Your task to perform on an android device: clear history in the chrome app Image 0: 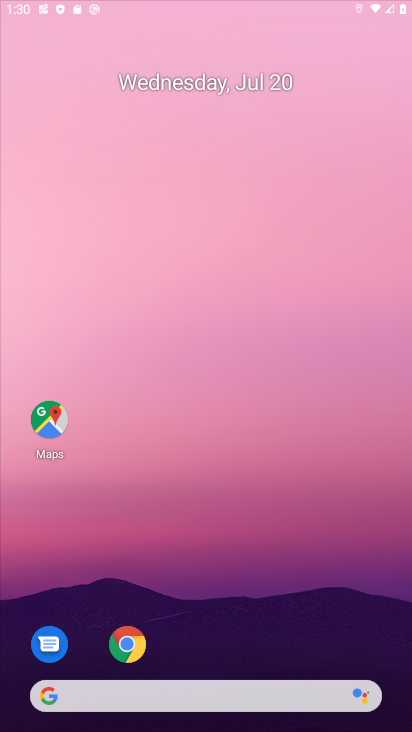
Step 0: press home button
Your task to perform on an android device: clear history in the chrome app Image 1: 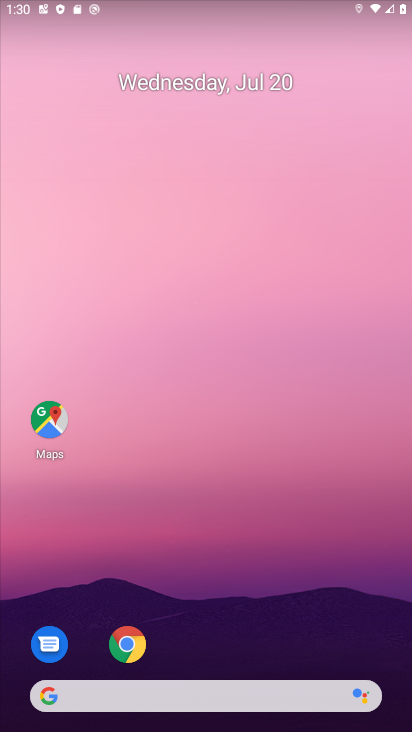
Step 1: drag from (248, 610) to (242, 30)
Your task to perform on an android device: clear history in the chrome app Image 2: 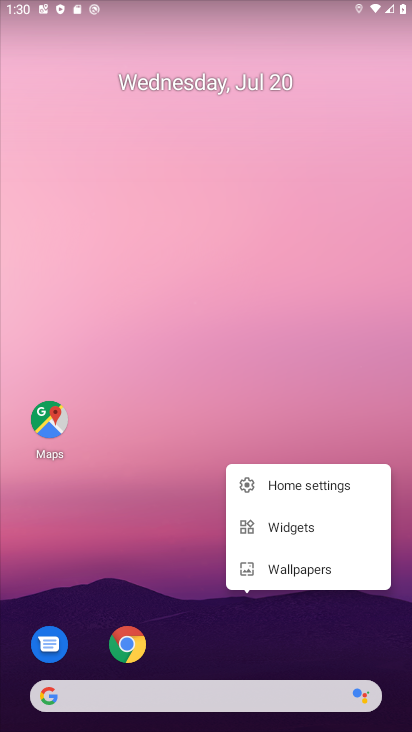
Step 2: drag from (208, 630) to (252, 95)
Your task to perform on an android device: clear history in the chrome app Image 3: 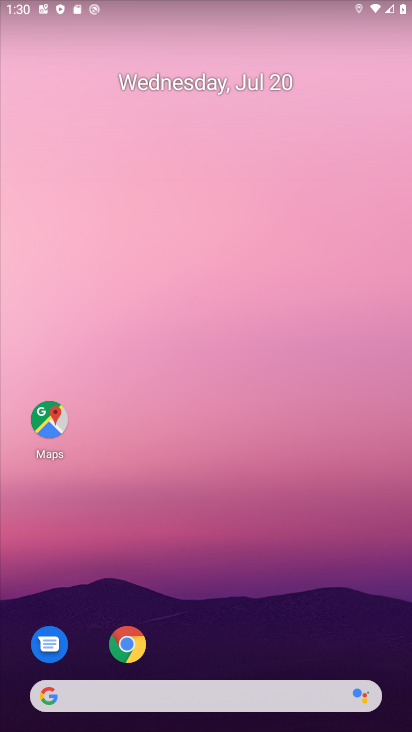
Step 3: drag from (231, 657) to (197, 119)
Your task to perform on an android device: clear history in the chrome app Image 4: 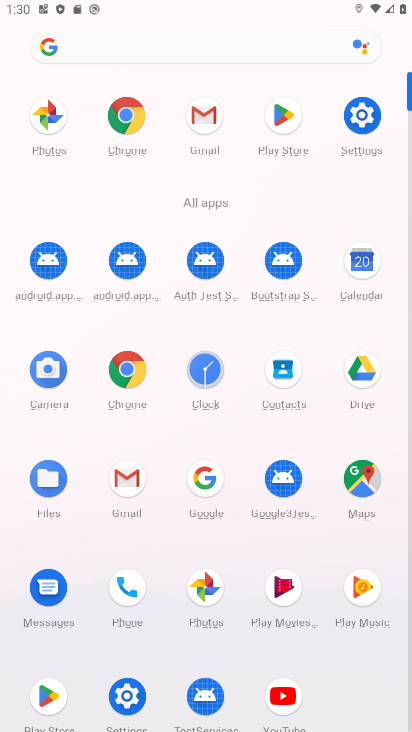
Step 4: click (123, 126)
Your task to perform on an android device: clear history in the chrome app Image 5: 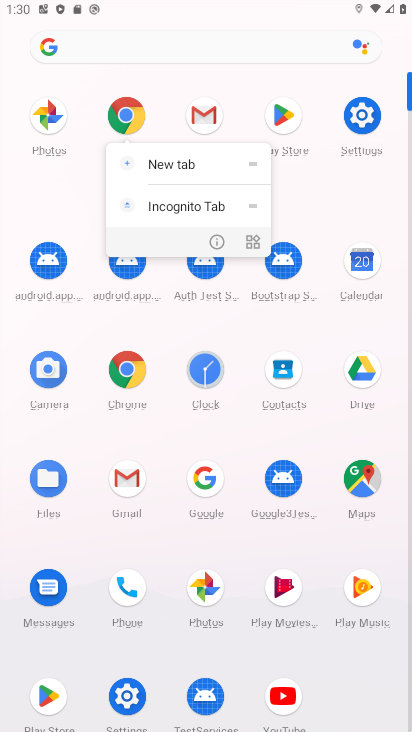
Step 5: click (123, 126)
Your task to perform on an android device: clear history in the chrome app Image 6: 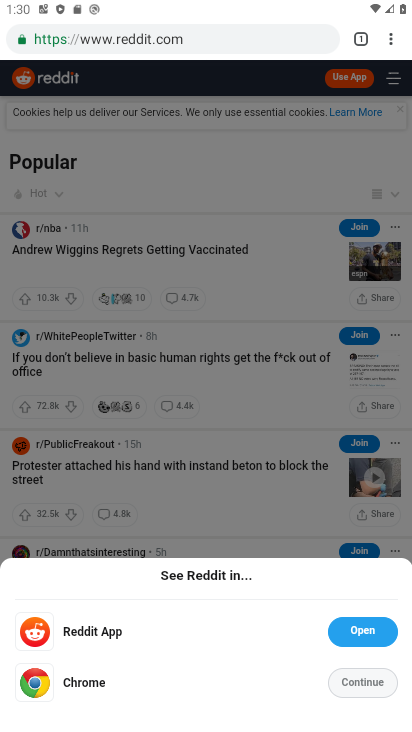
Step 6: drag from (385, 38) to (245, 282)
Your task to perform on an android device: clear history in the chrome app Image 7: 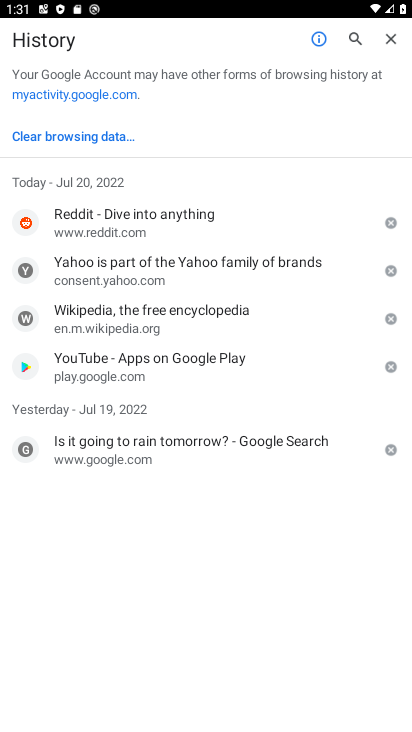
Step 7: click (86, 139)
Your task to perform on an android device: clear history in the chrome app Image 8: 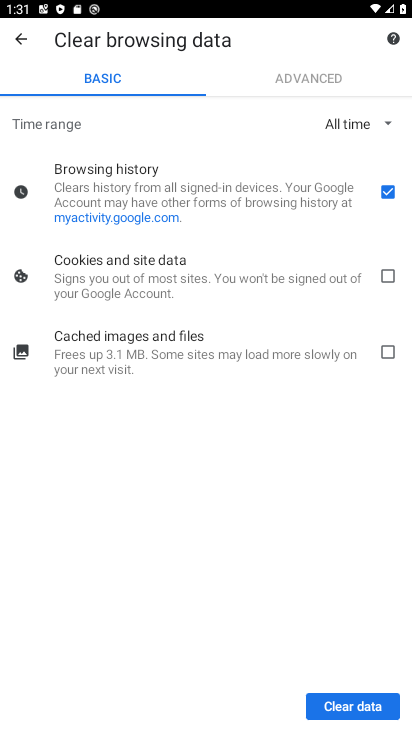
Step 8: click (355, 715)
Your task to perform on an android device: clear history in the chrome app Image 9: 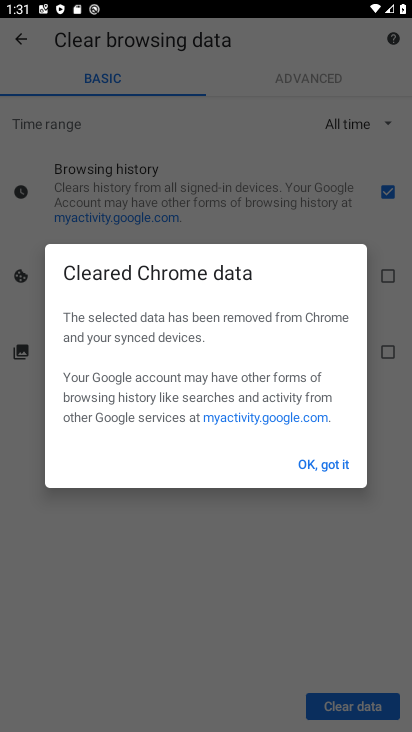
Step 9: click (321, 464)
Your task to perform on an android device: clear history in the chrome app Image 10: 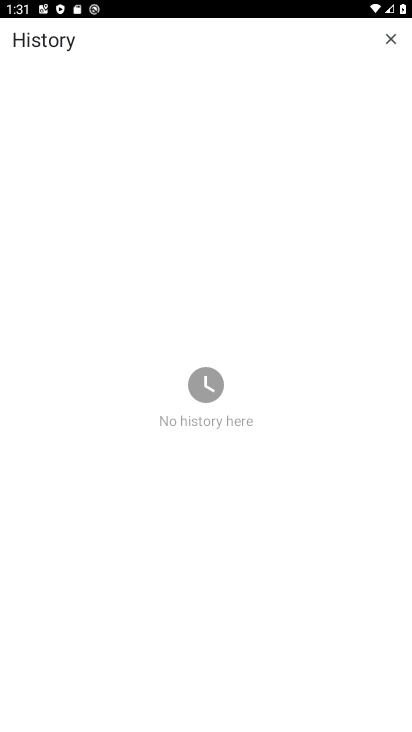
Step 10: task complete